Your task to perform on an android device: toggle sleep mode Image 0: 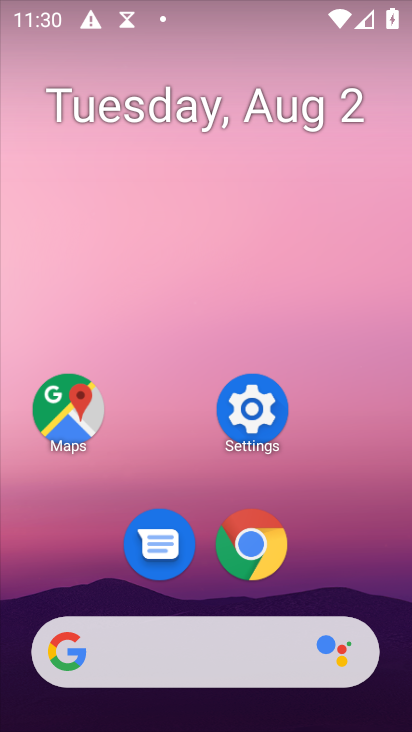
Step 0: click (263, 401)
Your task to perform on an android device: toggle sleep mode Image 1: 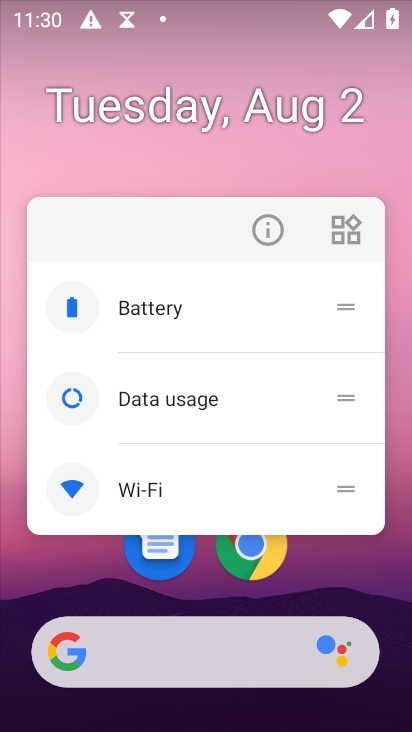
Step 1: click (355, 560)
Your task to perform on an android device: toggle sleep mode Image 2: 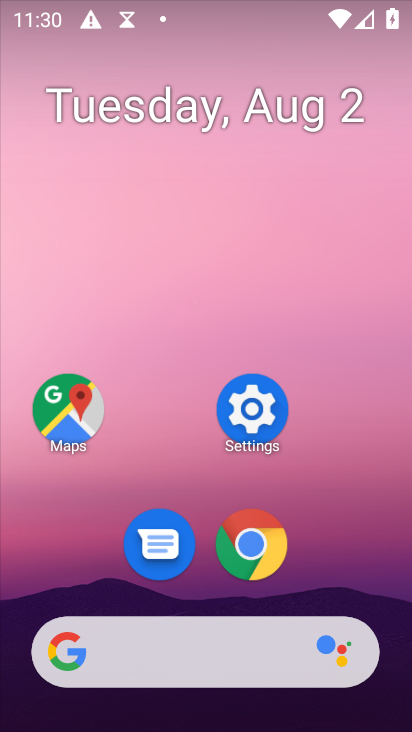
Step 2: click (247, 412)
Your task to perform on an android device: toggle sleep mode Image 3: 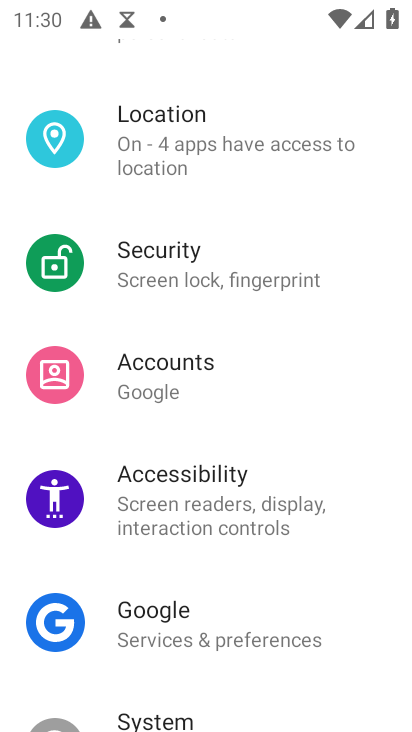
Step 3: drag from (319, 250) to (295, 585)
Your task to perform on an android device: toggle sleep mode Image 4: 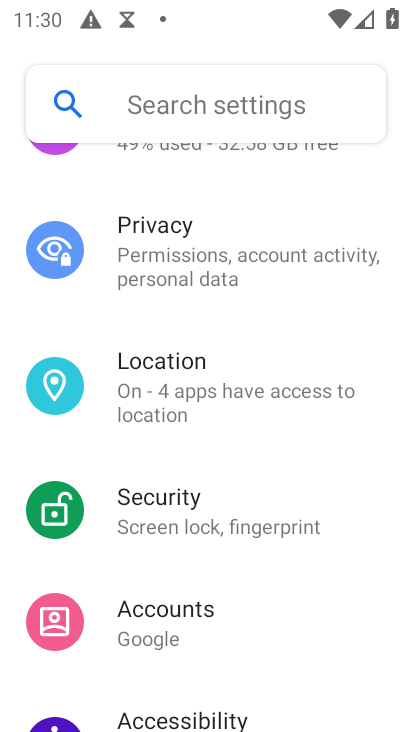
Step 4: drag from (316, 223) to (239, 676)
Your task to perform on an android device: toggle sleep mode Image 5: 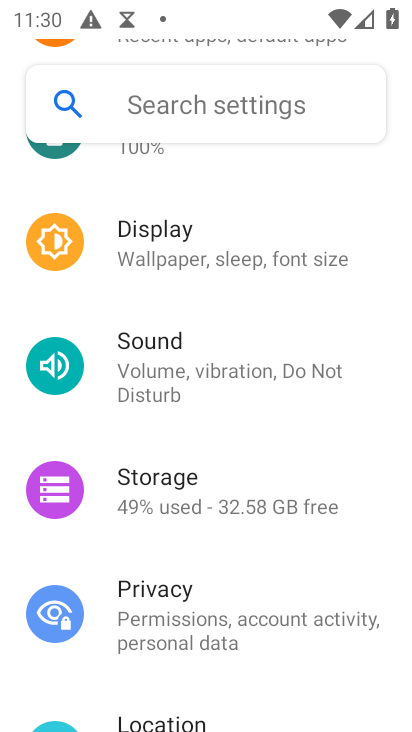
Step 5: drag from (288, 178) to (225, 642)
Your task to perform on an android device: toggle sleep mode Image 6: 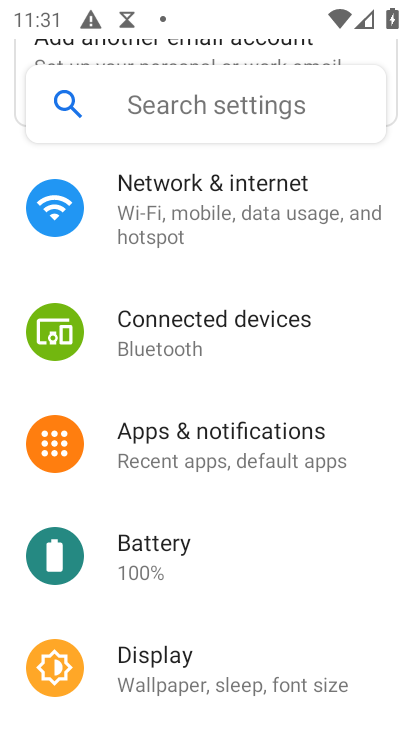
Step 6: click (202, 672)
Your task to perform on an android device: toggle sleep mode Image 7: 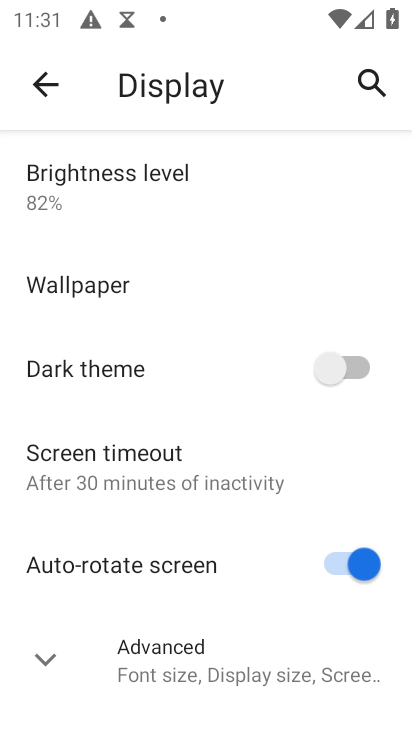
Step 7: task complete